Your task to perform on an android device: toggle show notifications on the lock screen Image 0: 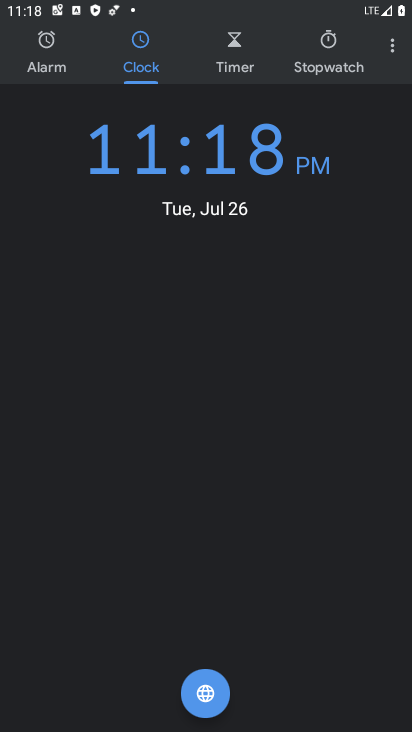
Step 0: press home button
Your task to perform on an android device: toggle show notifications on the lock screen Image 1: 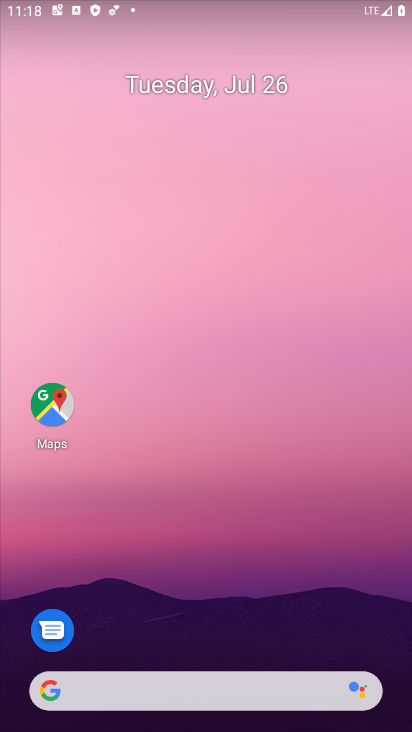
Step 1: drag from (252, 610) to (381, 1)
Your task to perform on an android device: toggle show notifications on the lock screen Image 2: 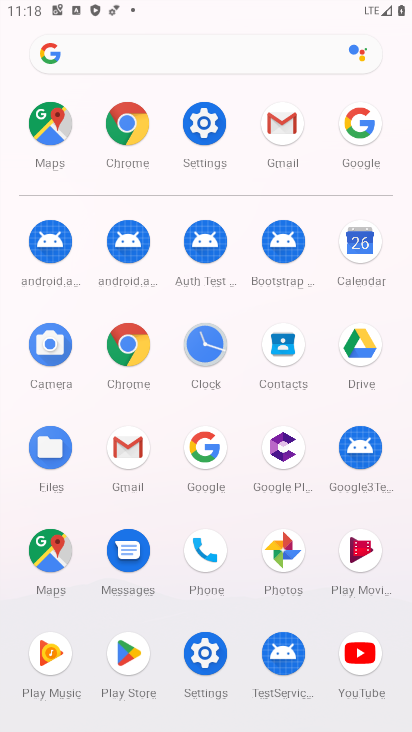
Step 2: click (210, 118)
Your task to perform on an android device: toggle show notifications on the lock screen Image 3: 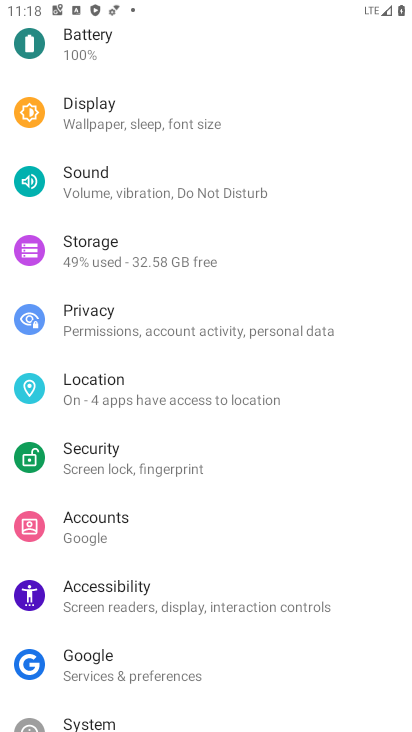
Step 3: drag from (91, 109) to (162, 596)
Your task to perform on an android device: toggle show notifications on the lock screen Image 4: 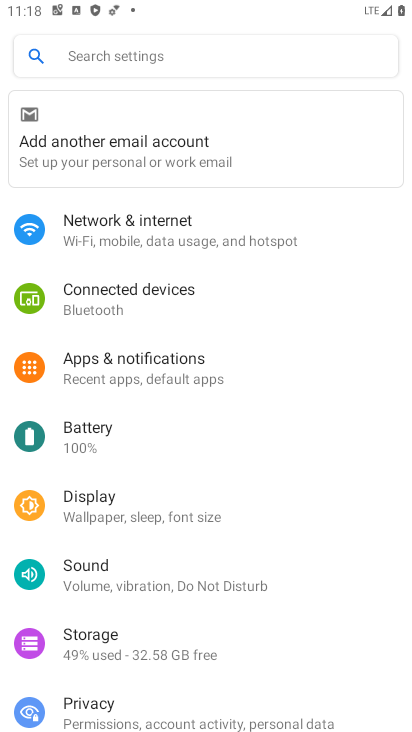
Step 4: click (162, 359)
Your task to perform on an android device: toggle show notifications on the lock screen Image 5: 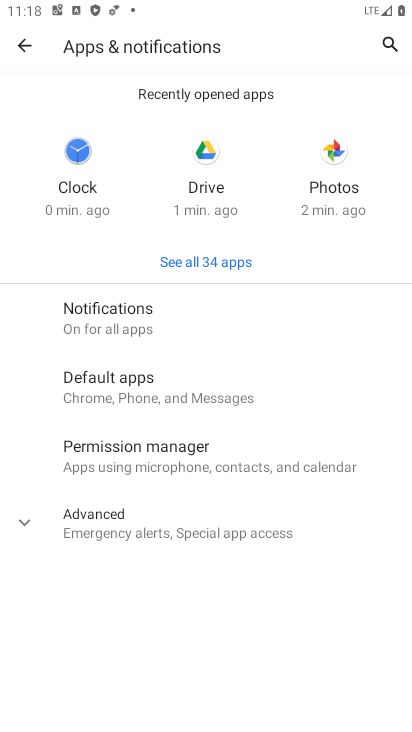
Step 5: click (117, 307)
Your task to perform on an android device: toggle show notifications on the lock screen Image 6: 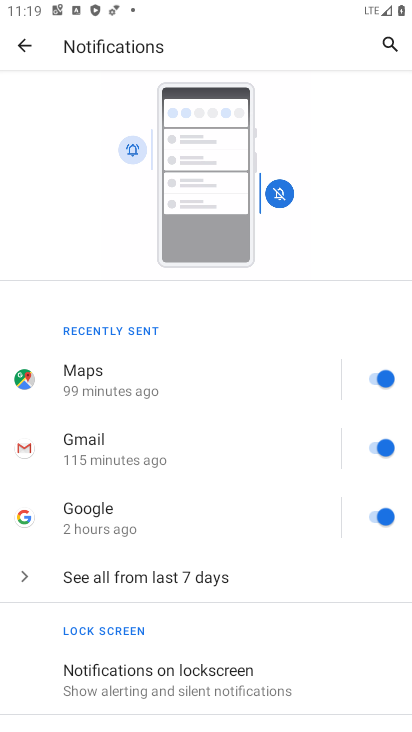
Step 6: click (117, 681)
Your task to perform on an android device: toggle show notifications on the lock screen Image 7: 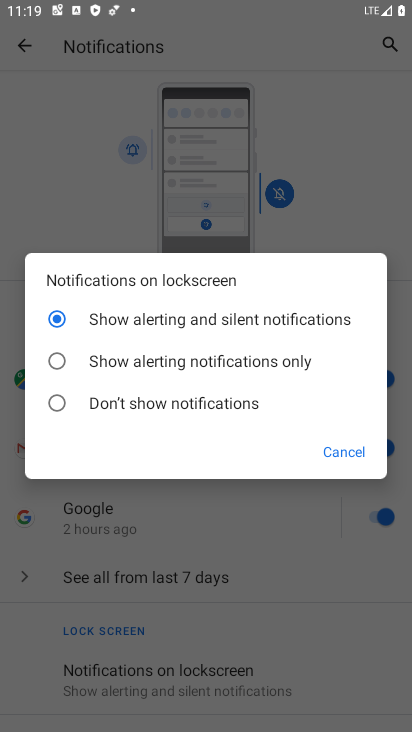
Step 7: click (118, 361)
Your task to perform on an android device: toggle show notifications on the lock screen Image 8: 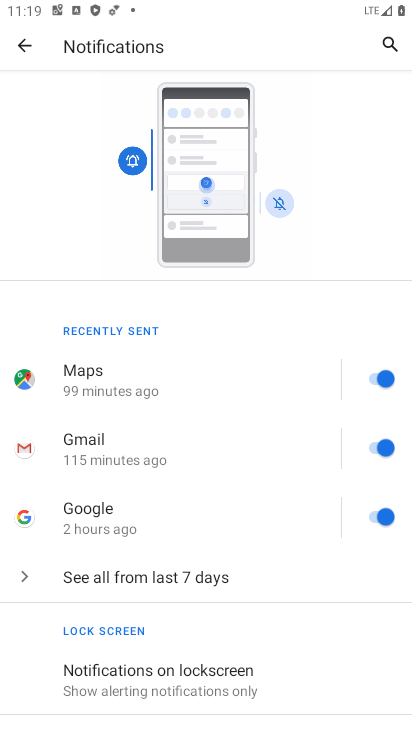
Step 8: task complete